Your task to perform on an android device: Open Yahoo.com Image 0: 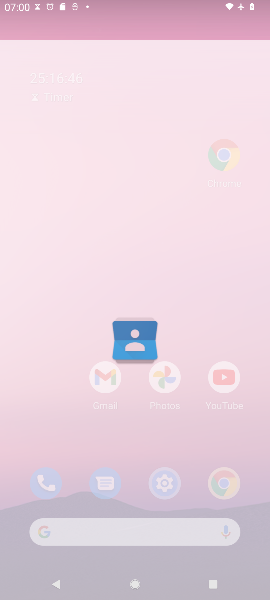
Step 0: press home button
Your task to perform on an android device: Open Yahoo.com Image 1: 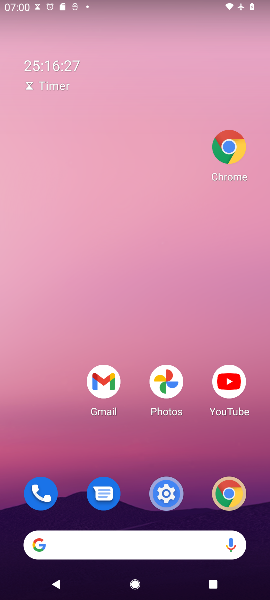
Step 1: click (38, 543)
Your task to perform on an android device: Open Yahoo.com Image 2: 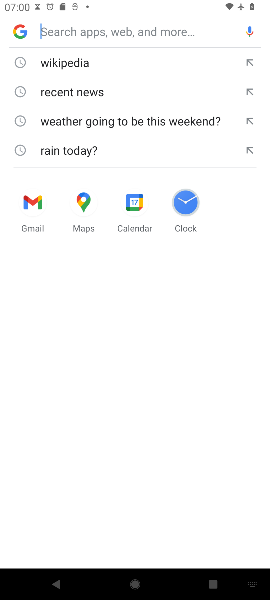
Step 2: type "Yahoo.com"
Your task to perform on an android device: Open Yahoo.com Image 3: 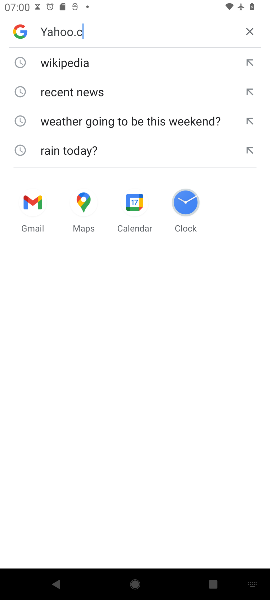
Step 3: press enter
Your task to perform on an android device: Open Yahoo.com Image 4: 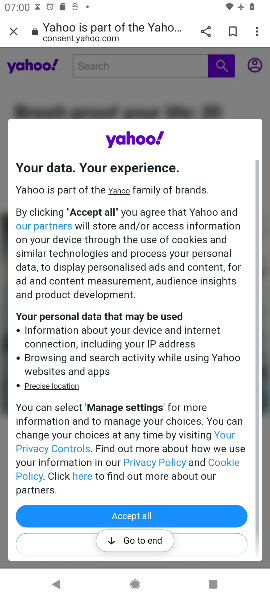
Step 4: click (142, 521)
Your task to perform on an android device: Open Yahoo.com Image 5: 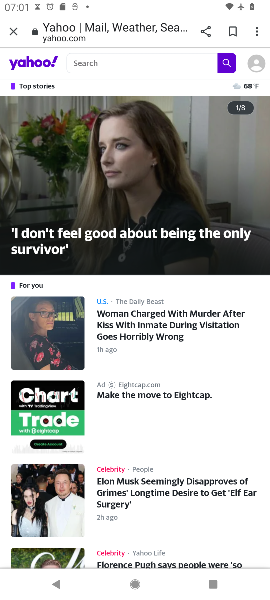
Step 5: task complete